Your task to perform on an android device: check android version Image 0: 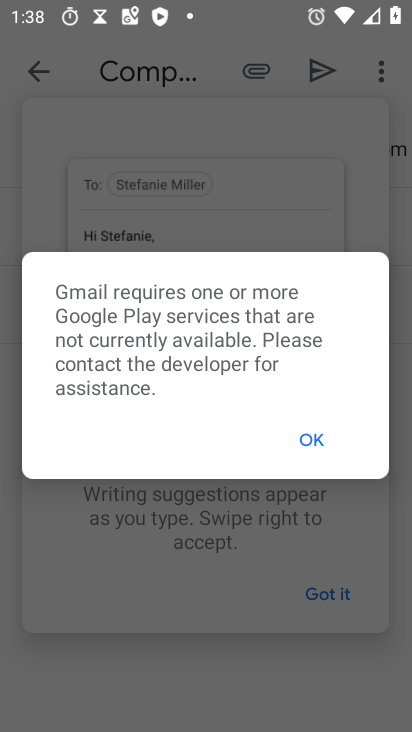
Step 0: press home button
Your task to perform on an android device: check android version Image 1: 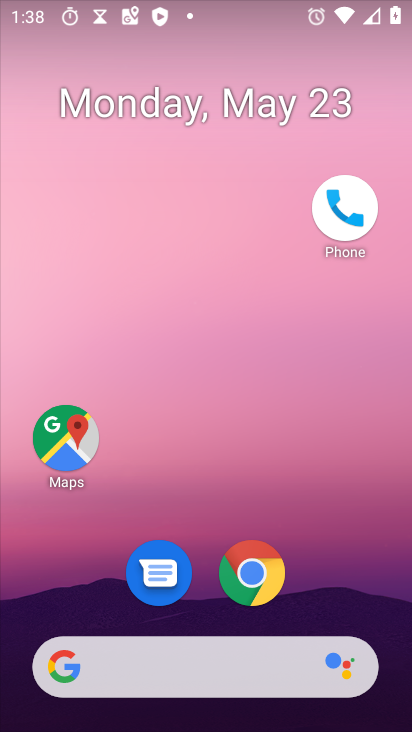
Step 1: drag from (159, 645) to (272, 39)
Your task to perform on an android device: check android version Image 2: 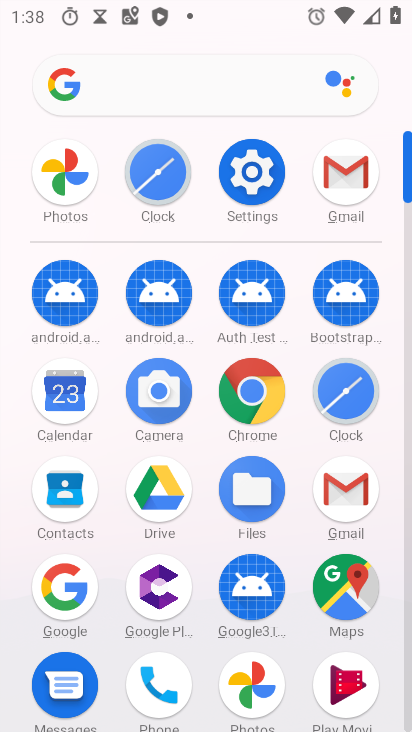
Step 2: click (246, 165)
Your task to perform on an android device: check android version Image 3: 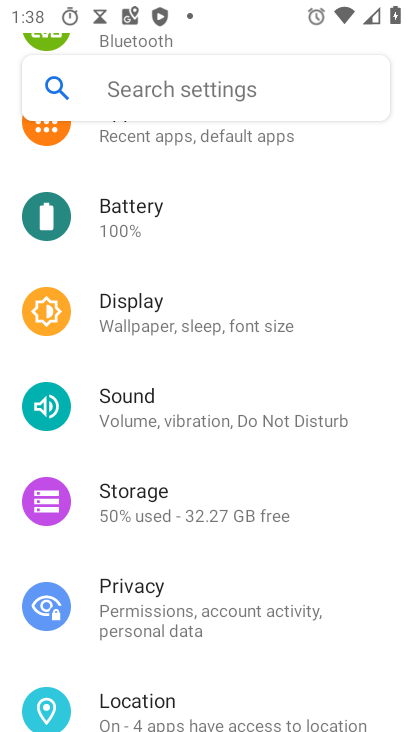
Step 3: drag from (292, 692) to (390, 33)
Your task to perform on an android device: check android version Image 4: 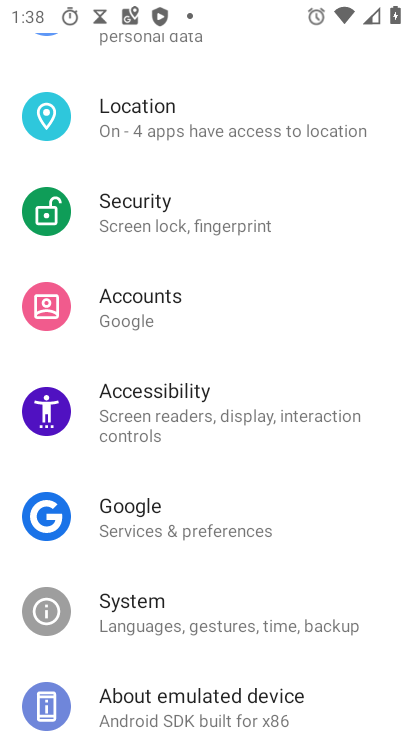
Step 4: drag from (259, 668) to (291, 204)
Your task to perform on an android device: check android version Image 5: 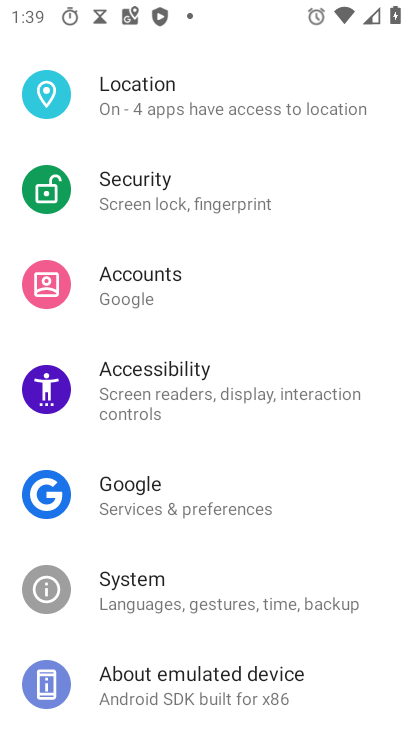
Step 5: click (212, 667)
Your task to perform on an android device: check android version Image 6: 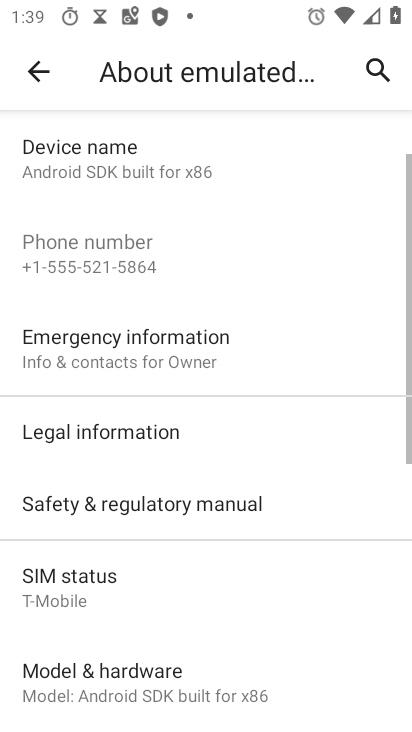
Step 6: drag from (207, 584) to (308, 155)
Your task to perform on an android device: check android version Image 7: 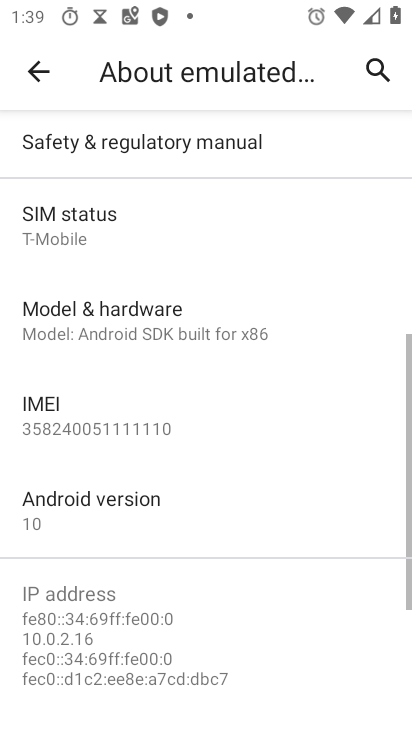
Step 7: click (105, 496)
Your task to perform on an android device: check android version Image 8: 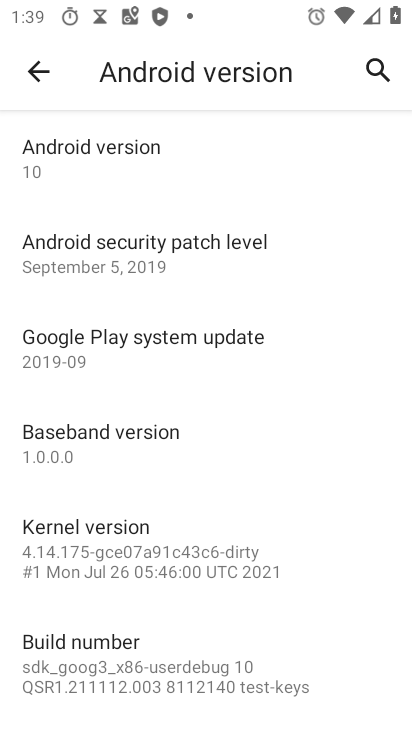
Step 8: task complete